Your task to perform on an android device: Is it going to rain today? Image 0: 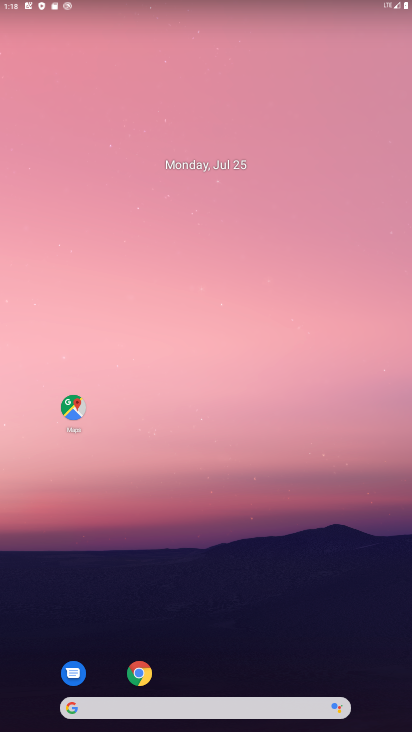
Step 0: click (168, 706)
Your task to perform on an android device: Is it going to rain today? Image 1: 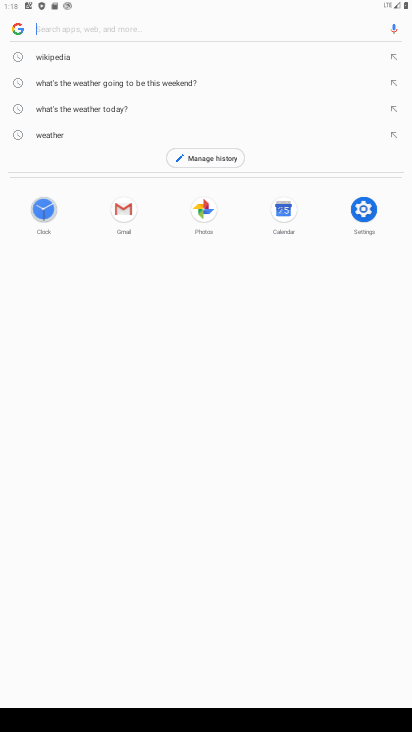
Step 1: click (47, 135)
Your task to perform on an android device: Is it going to rain today? Image 2: 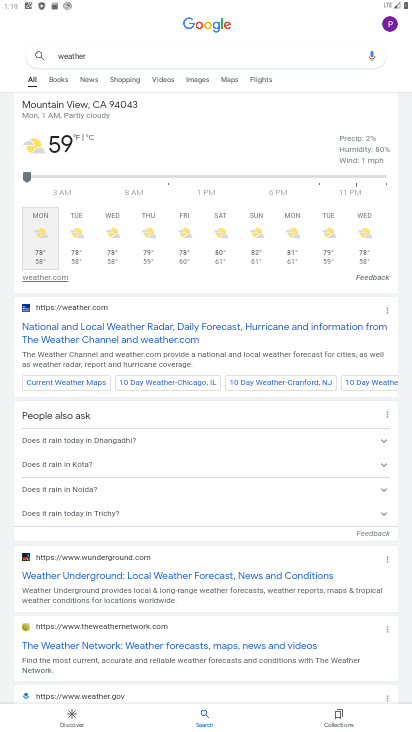
Step 2: task complete